Your task to perform on an android device: Open Google Chrome and click the shortcut for Amazon.com Image 0: 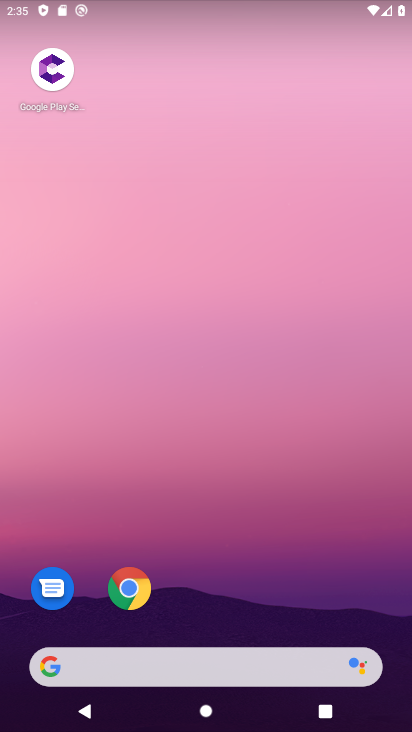
Step 0: click (131, 586)
Your task to perform on an android device: Open Google Chrome and click the shortcut for Amazon.com Image 1: 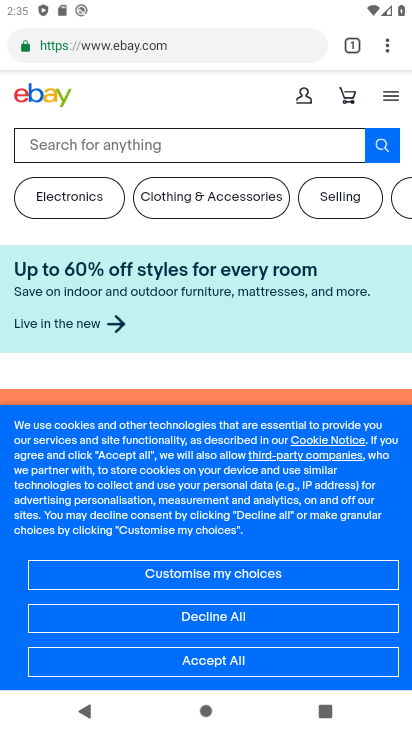
Step 1: click (265, 46)
Your task to perform on an android device: Open Google Chrome and click the shortcut for Amazon.com Image 2: 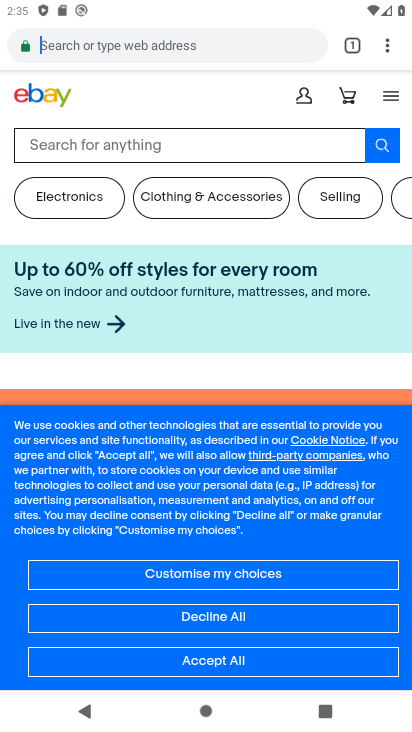
Step 2: click (265, 46)
Your task to perform on an android device: Open Google Chrome and click the shortcut for Amazon.com Image 3: 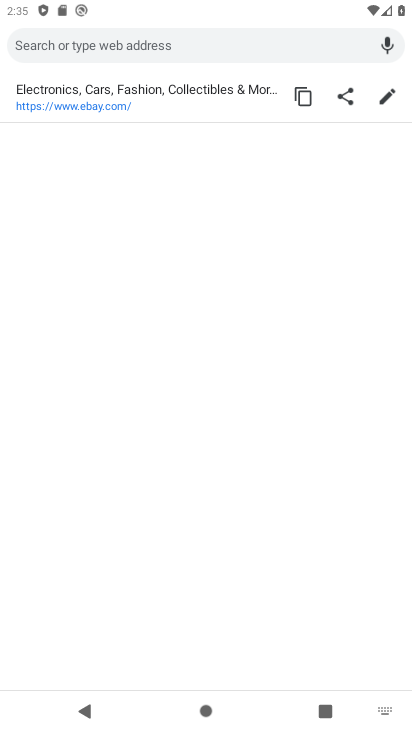
Step 3: click (265, 46)
Your task to perform on an android device: Open Google Chrome and click the shortcut for Amazon.com Image 4: 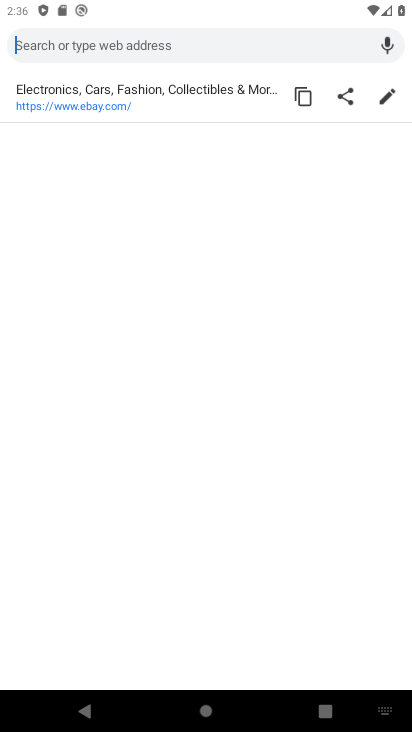
Step 4: type "Amazon"
Your task to perform on an android device: Open Google Chrome and click the shortcut for Amazon.com Image 5: 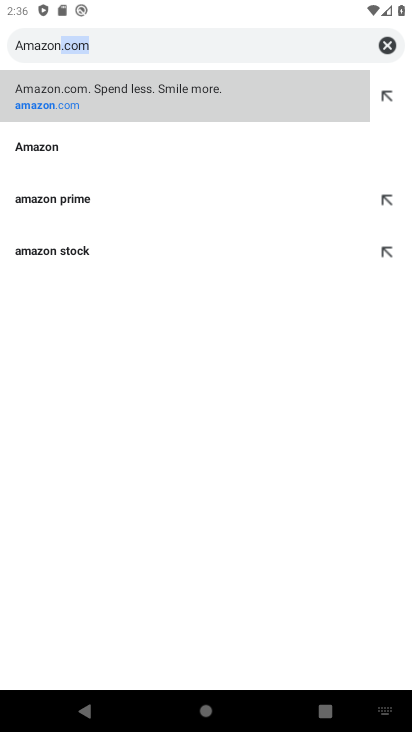
Step 5: click (71, 98)
Your task to perform on an android device: Open Google Chrome and click the shortcut for Amazon.com Image 6: 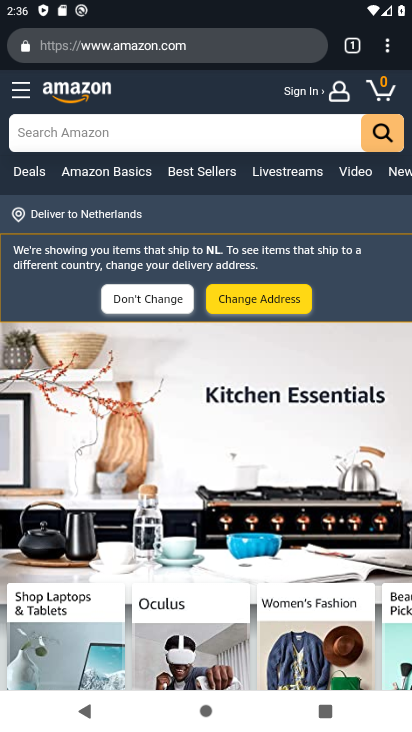
Step 6: click (389, 49)
Your task to perform on an android device: Open Google Chrome and click the shortcut for Amazon.com Image 7: 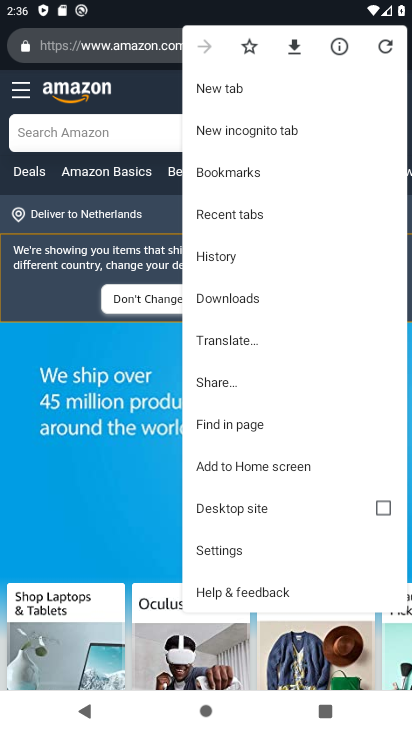
Step 7: click (277, 459)
Your task to perform on an android device: Open Google Chrome and click the shortcut for Amazon.com Image 8: 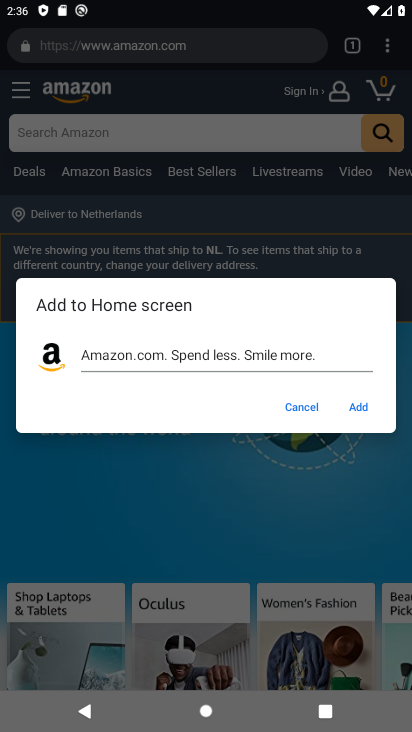
Step 8: click (356, 406)
Your task to perform on an android device: Open Google Chrome and click the shortcut for Amazon.com Image 9: 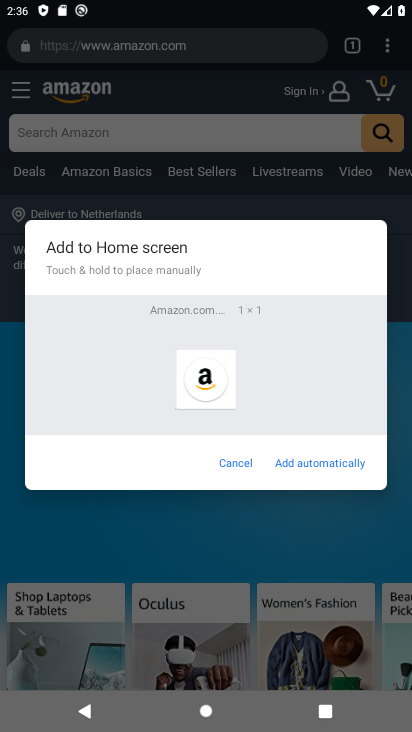
Step 9: click (326, 456)
Your task to perform on an android device: Open Google Chrome and click the shortcut for Amazon.com Image 10: 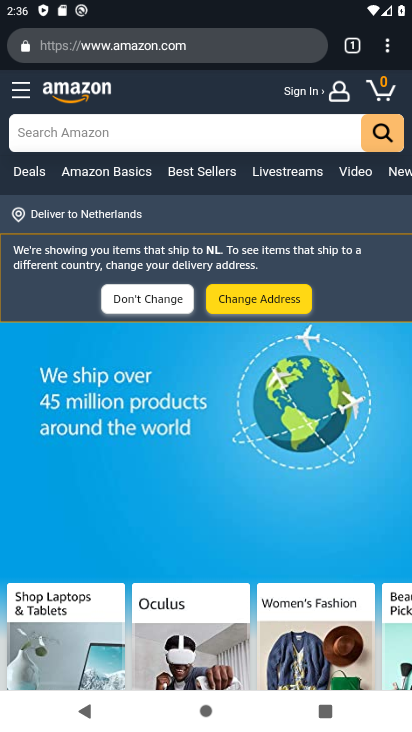
Step 10: task complete